Your task to perform on an android device: What is the recent news? Image 0: 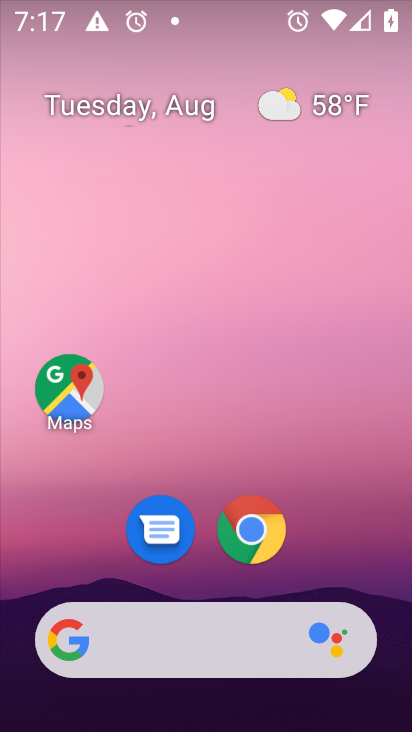
Step 0: press home button
Your task to perform on an android device: What is the recent news? Image 1: 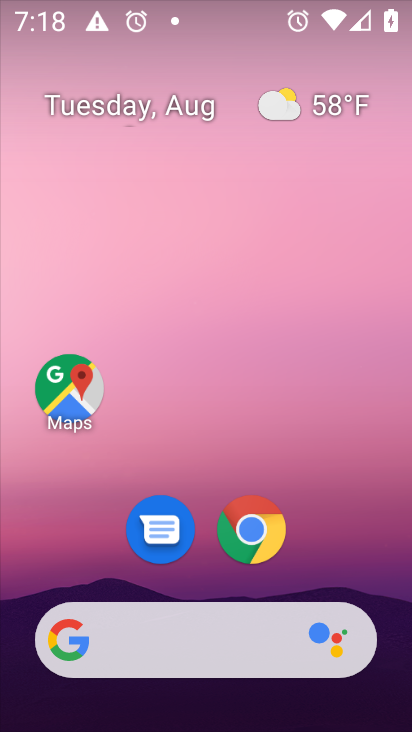
Step 1: click (63, 638)
Your task to perform on an android device: What is the recent news? Image 2: 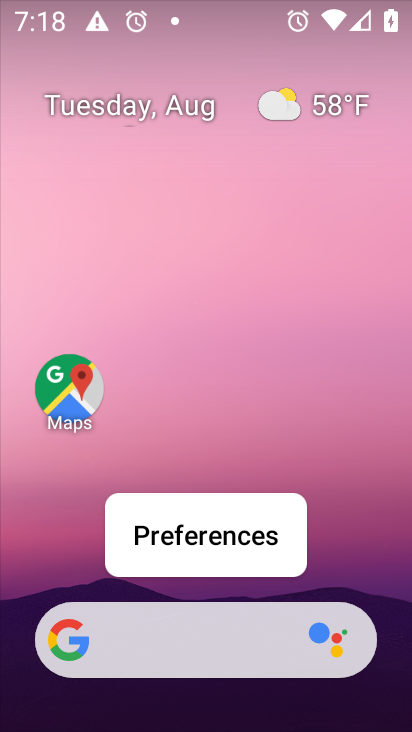
Step 2: click (71, 648)
Your task to perform on an android device: What is the recent news? Image 3: 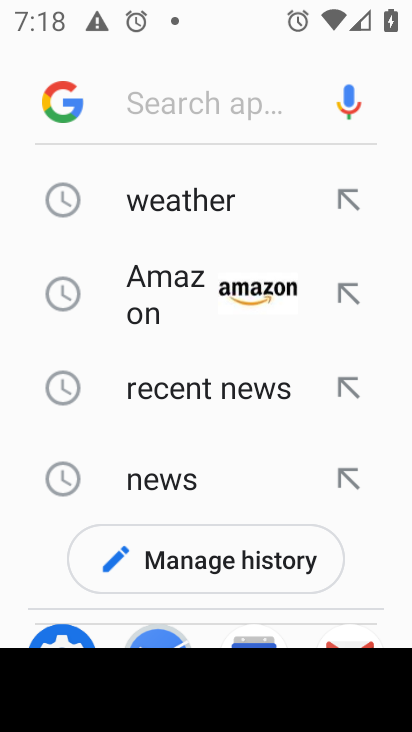
Step 3: click (206, 395)
Your task to perform on an android device: What is the recent news? Image 4: 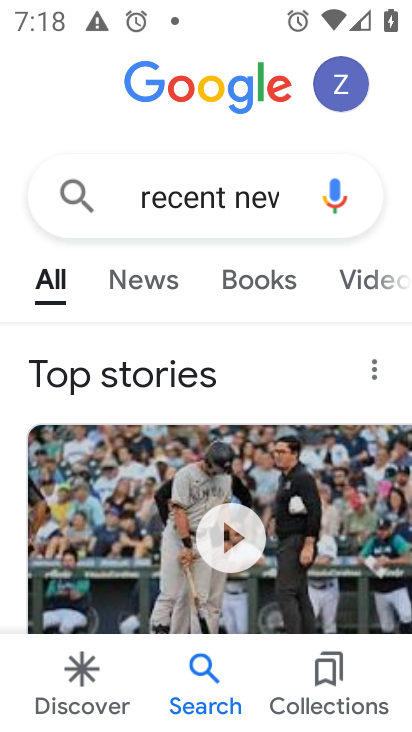
Step 4: task complete